Your task to perform on an android device: Open the calendar app, open the side menu, and click the "Day" option Image 0: 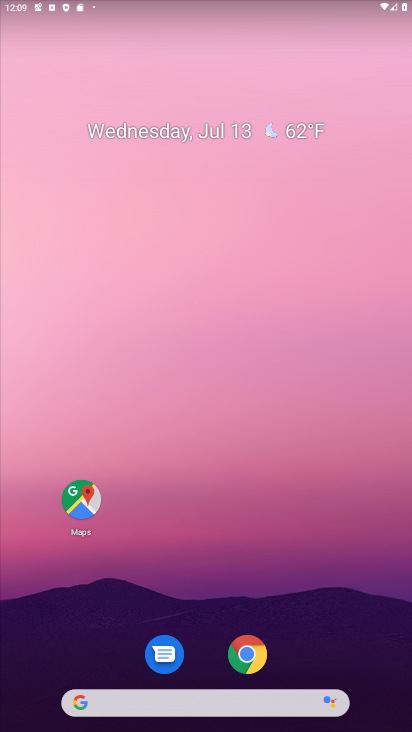
Step 0: drag from (224, 710) to (315, 98)
Your task to perform on an android device: Open the calendar app, open the side menu, and click the "Day" option Image 1: 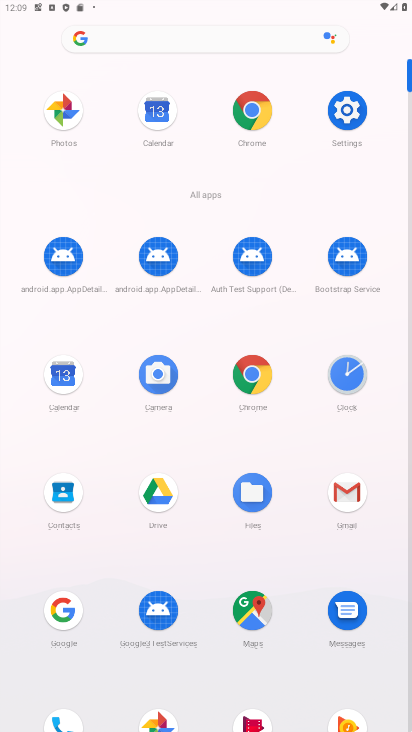
Step 1: click (60, 380)
Your task to perform on an android device: Open the calendar app, open the side menu, and click the "Day" option Image 2: 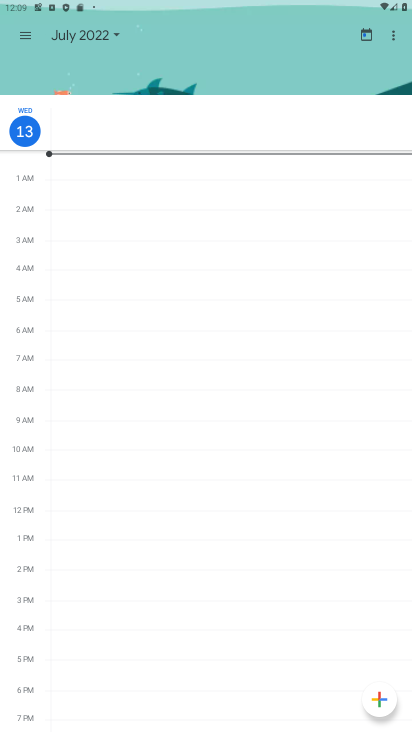
Step 2: click (32, 36)
Your task to perform on an android device: Open the calendar app, open the side menu, and click the "Day" option Image 3: 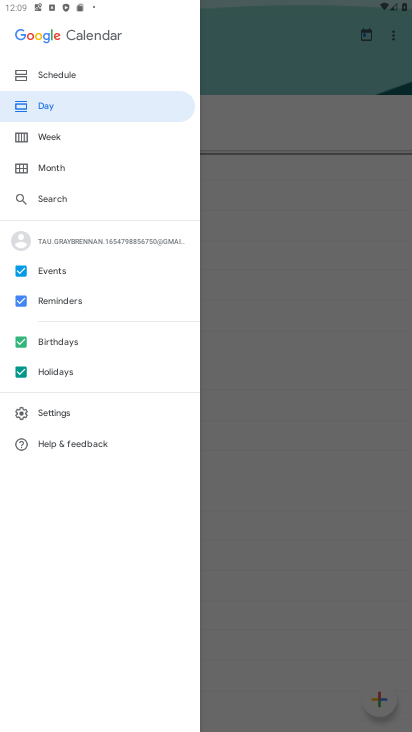
Step 3: click (77, 109)
Your task to perform on an android device: Open the calendar app, open the side menu, and click the "Day" option Image 4: 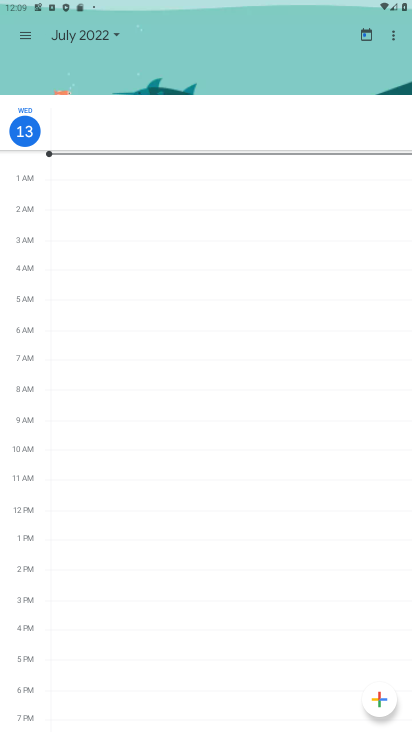
Step 4: task complete